Your task to perform on an android device: What's the weather going to be tomorrow? Image 0: 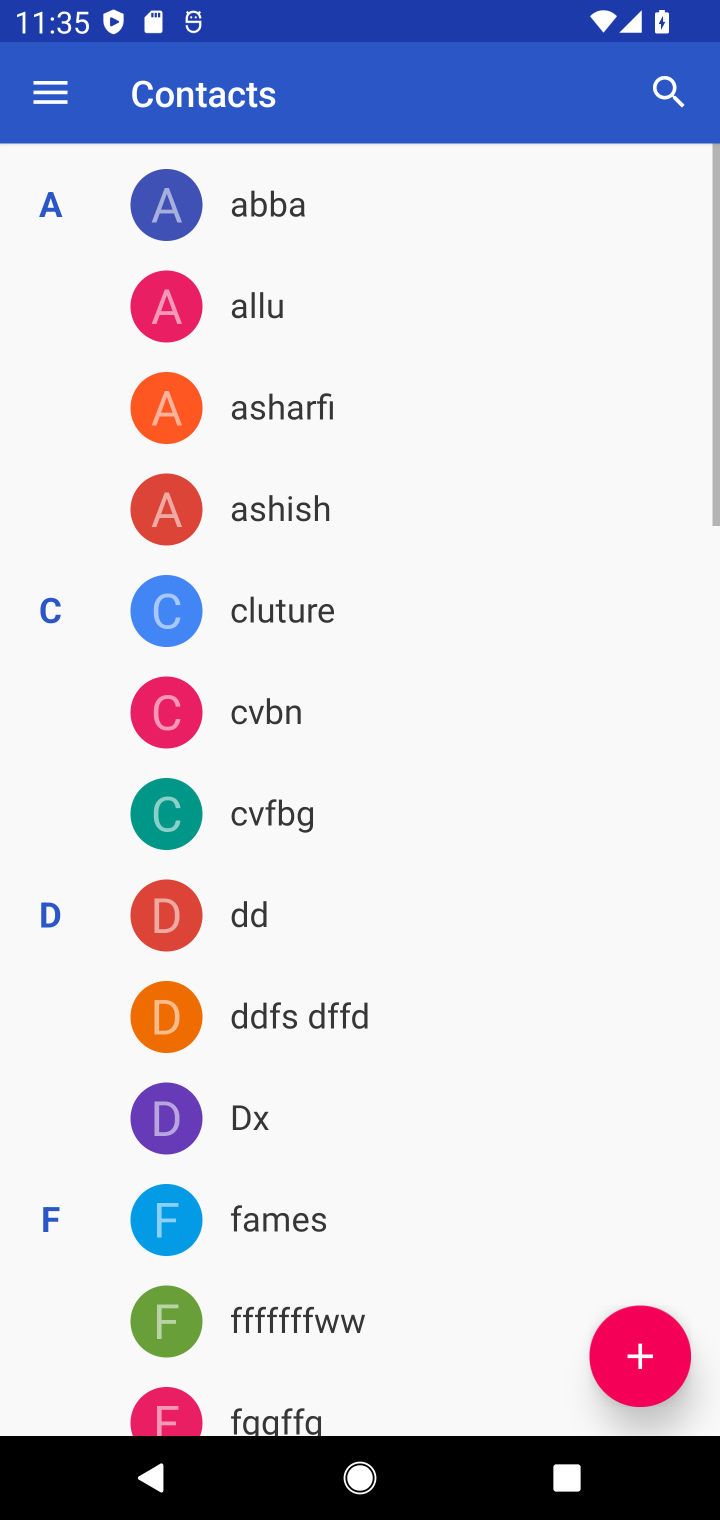
Step 0: press home button
Your task to perform on an android device: What's the weather going to be tomorrow? Image 1: 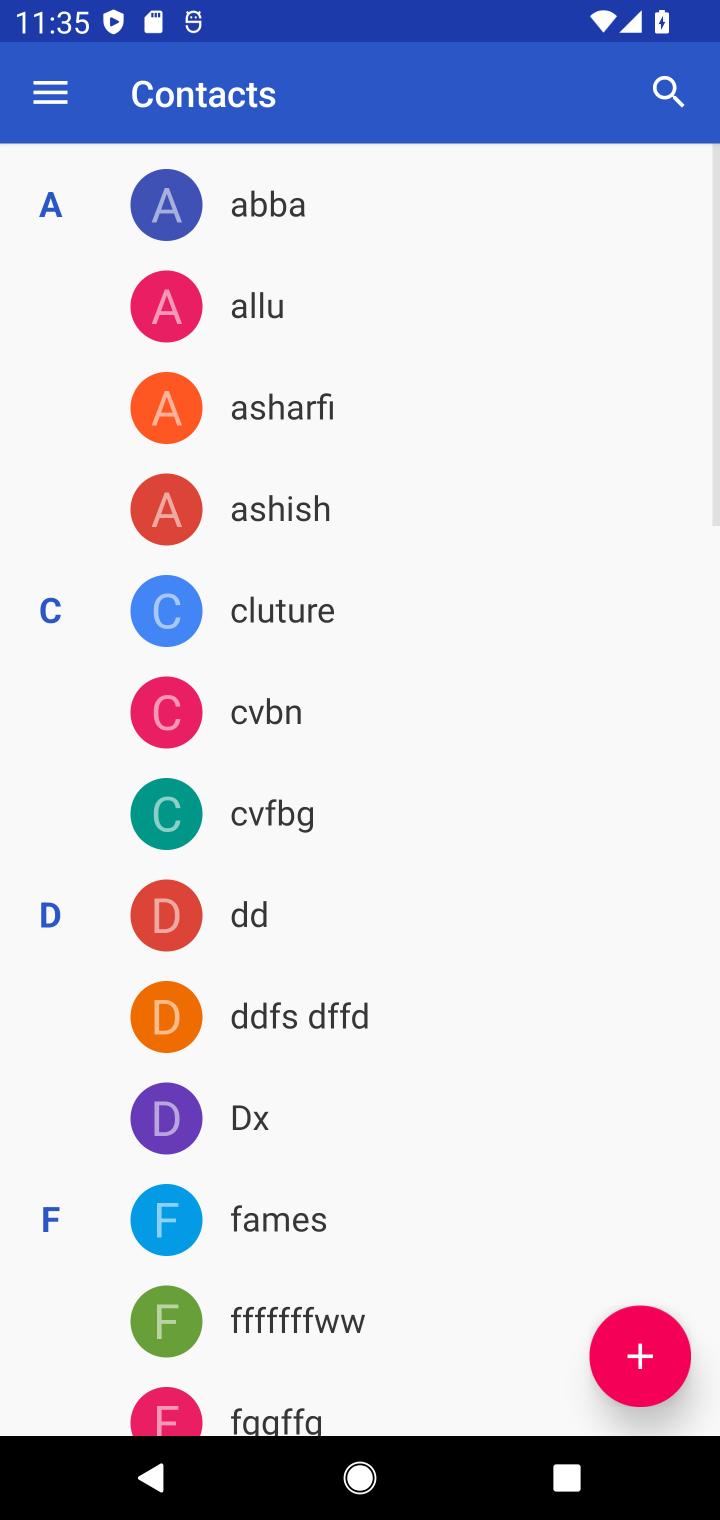
Step 1: press home button
Your task to perform on an android device: What's the weather going to be tomorrow? Image 2: 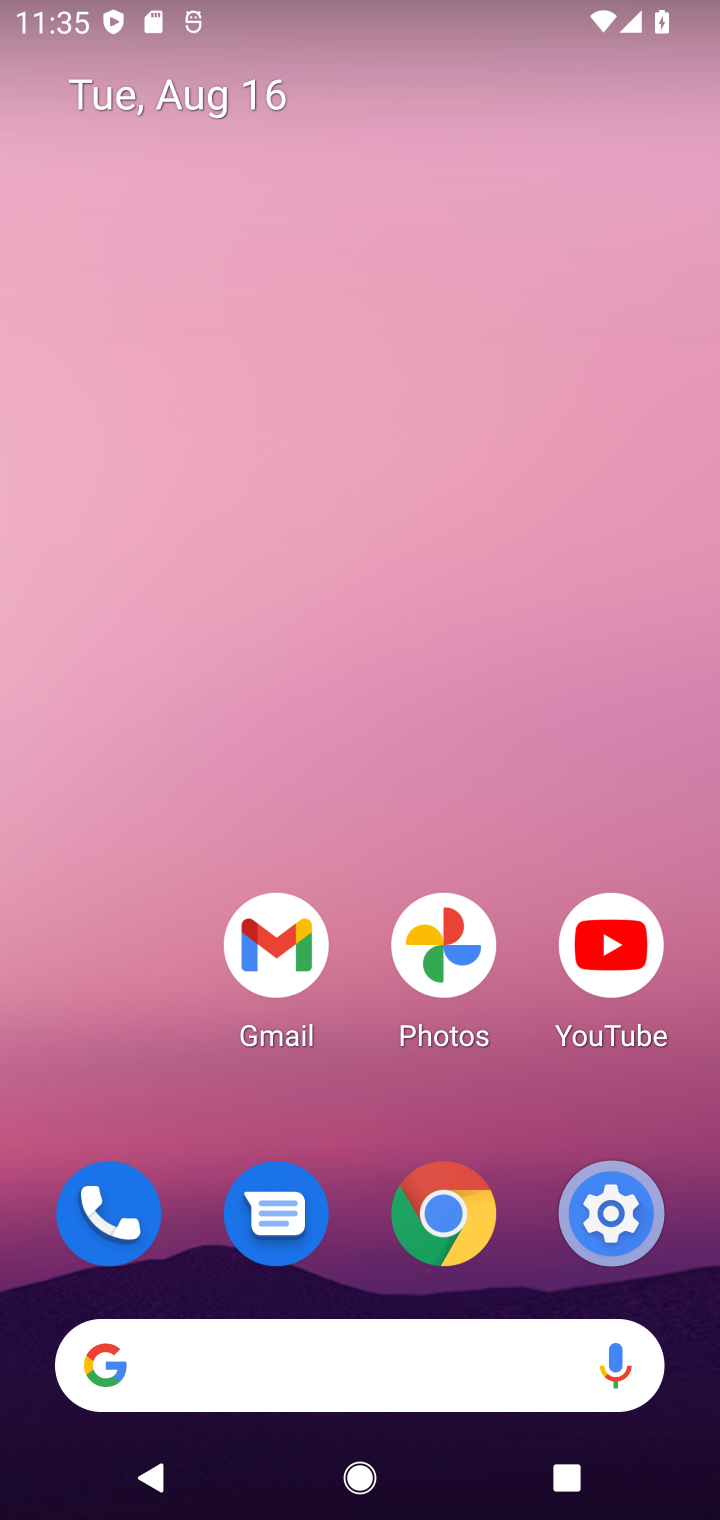
Step 2: drag from (351, 1051) to (419, 145)
Your task to perform on an android device: What's the weather going to be tomorrow? Image 3: 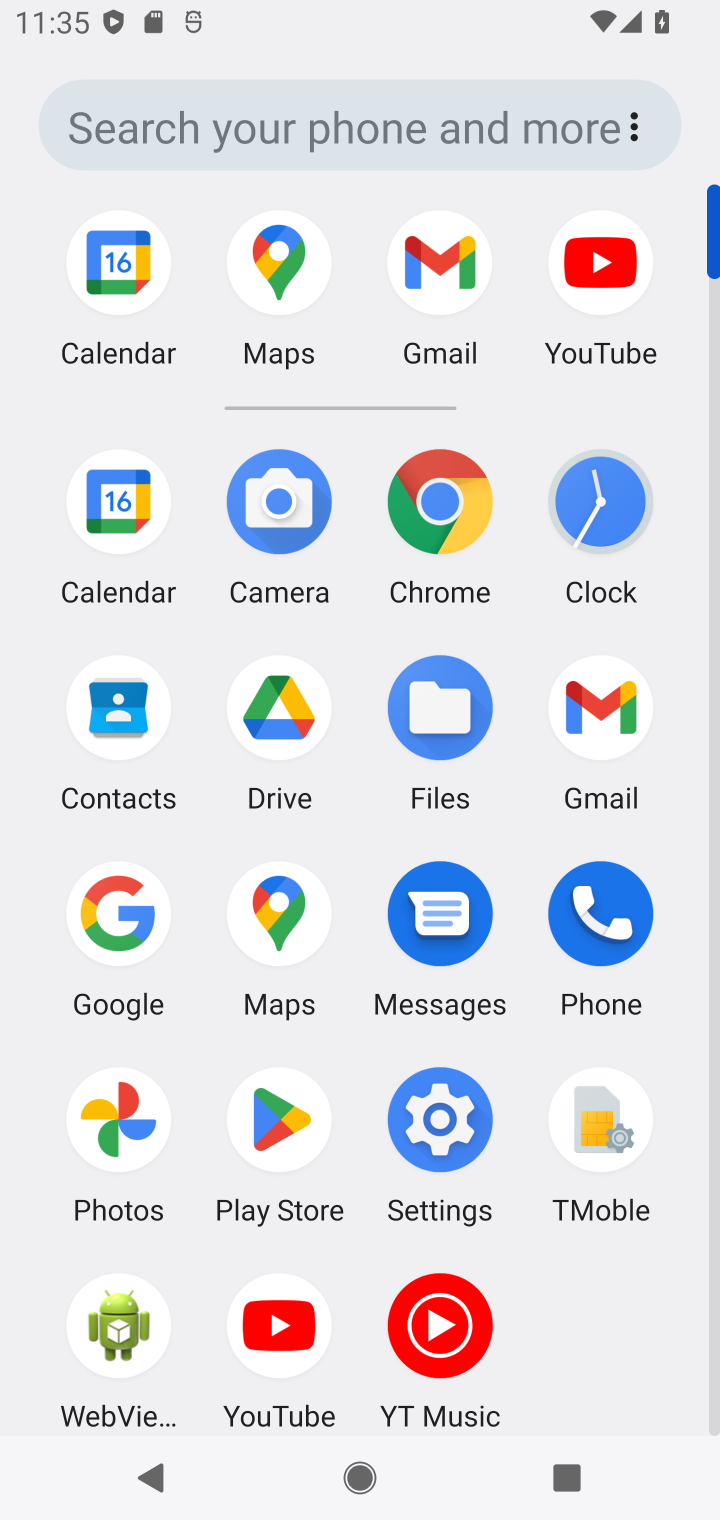
Step 3: click (443, 508)
Your task to perform on an android device: What's the weather going to be tomorrow? Image 4: 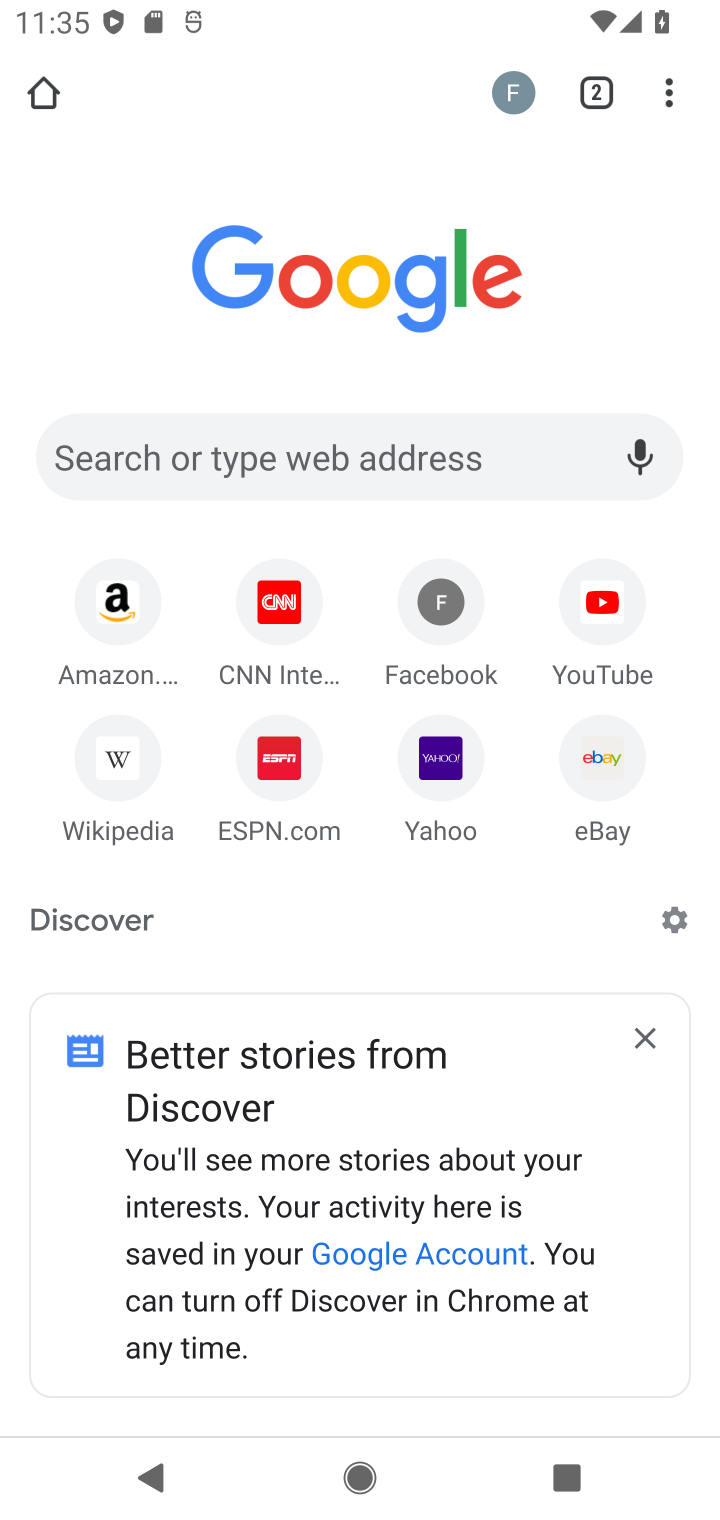
Step 4: click (360, 443)
Your task to perform on an android device: What's the weather going to be tomorrow? Image 5: 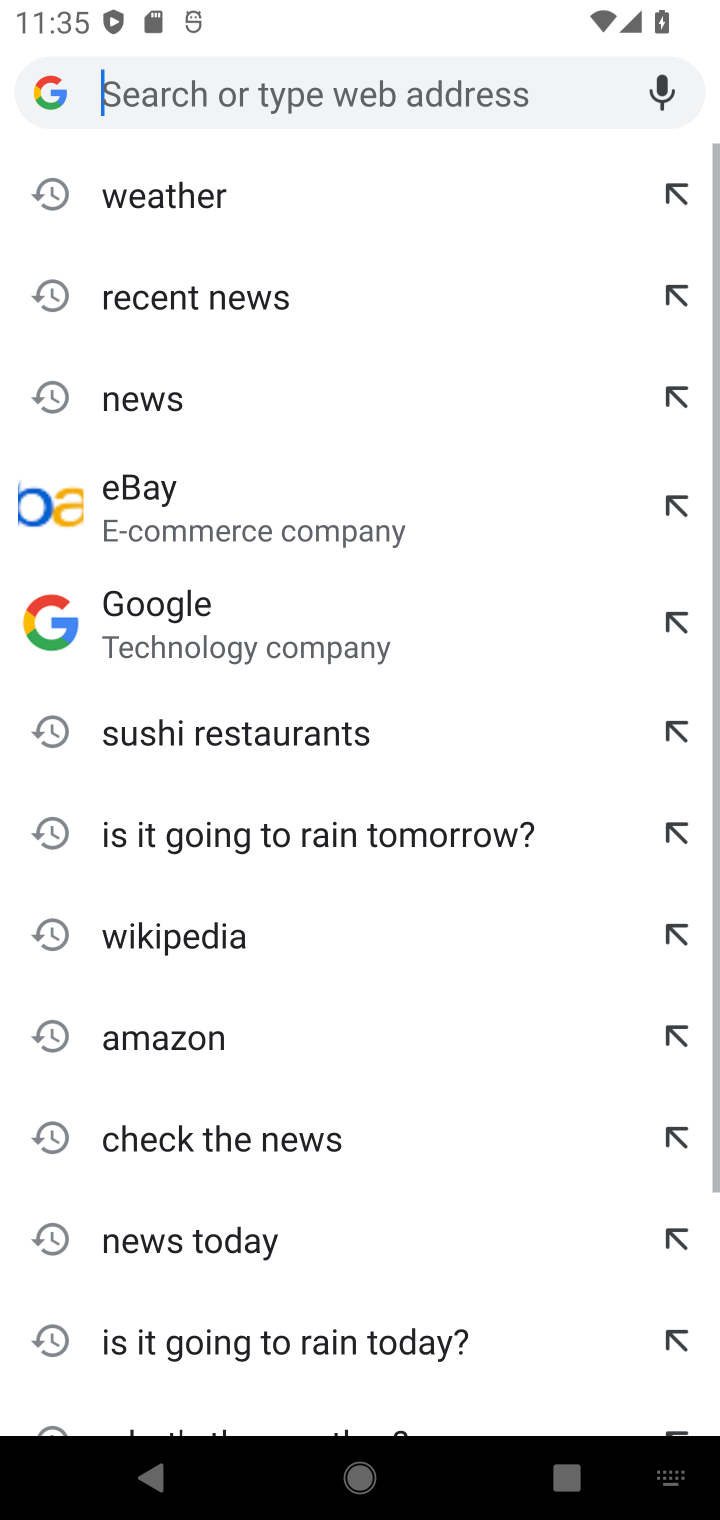
Step 5: click (189, 191)
Your task to perform on an android device: What's the weather going to be tomorrow? Image 6: 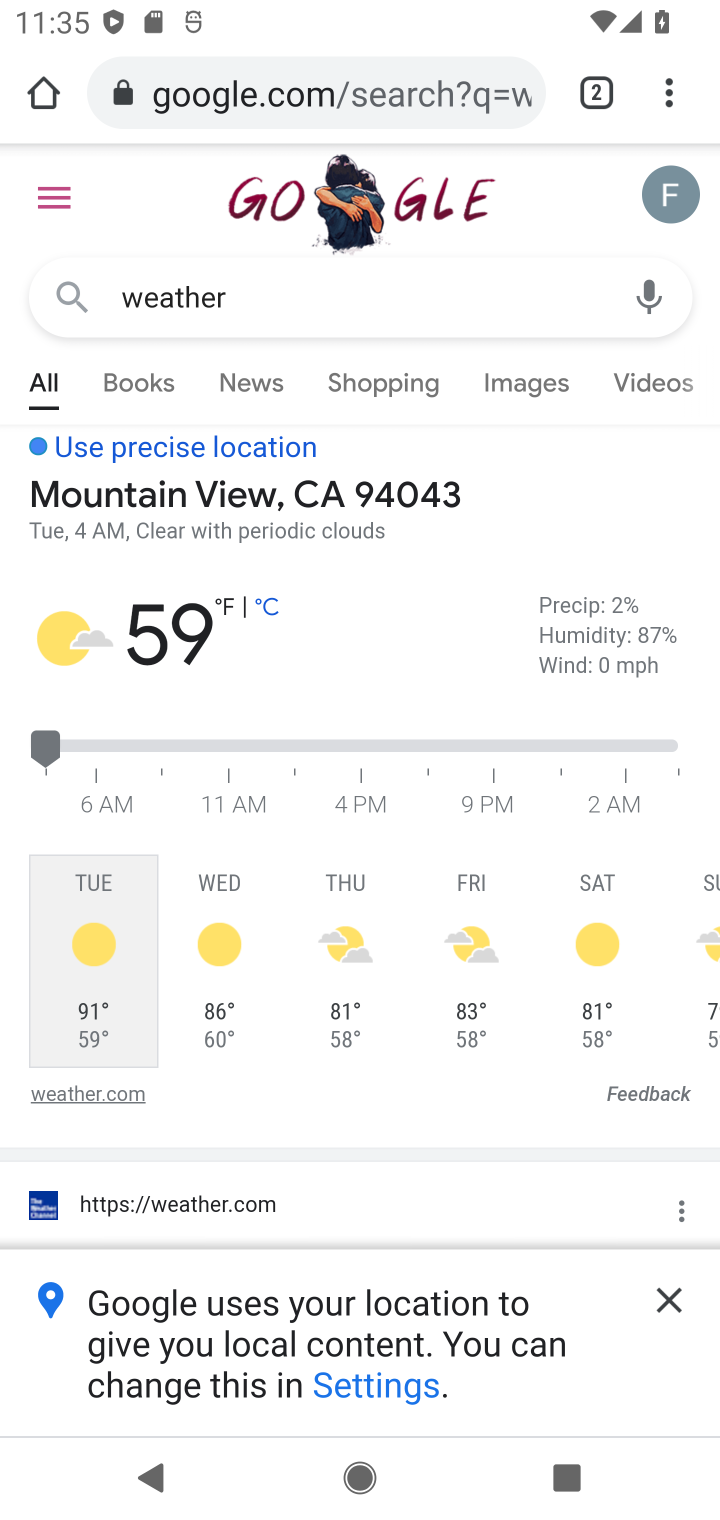
Step 6: click (232, 930)
Your task to perform on an android device: What's the weather going to be tomorrow? Image 7: 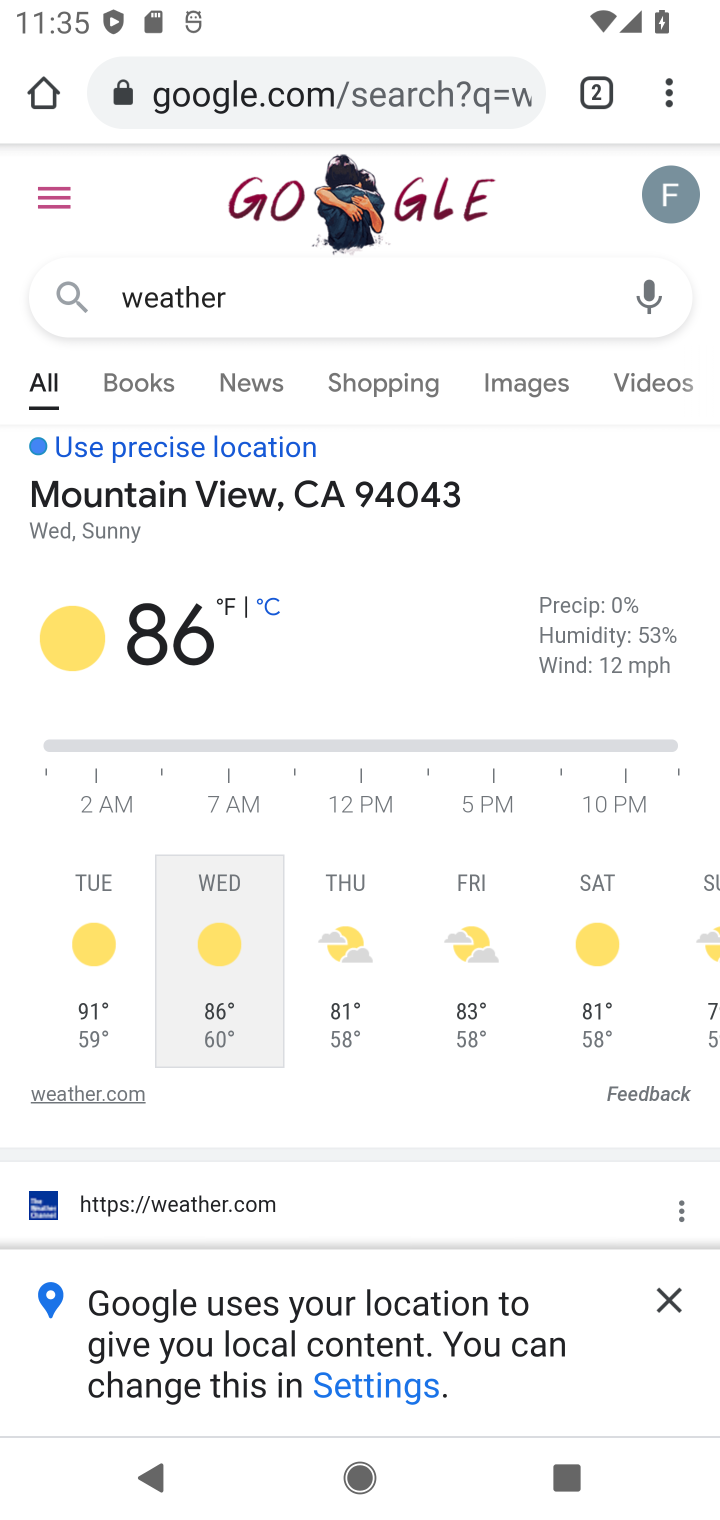
Step 7: task complete